Your task to perform on an android device: Open accessibility settings Image 0: 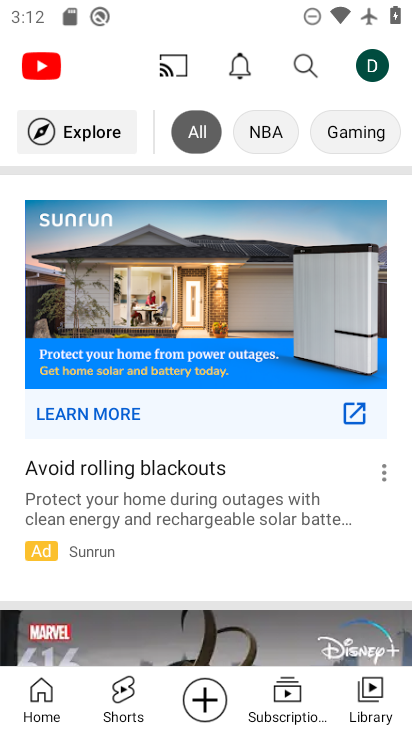
Step 0: press home button
Your task to perform on an android device: Open accessibility settings Image 1: 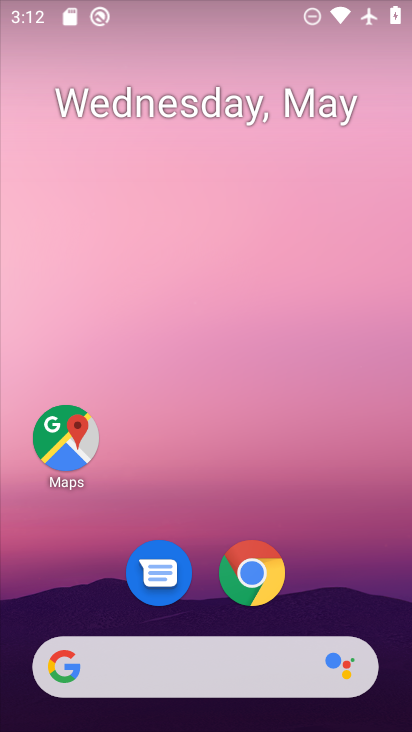
Step 1: drag from (321, 607) to (353, 54)
Your task to perform on an android device: Open accessibility settings Image 2: 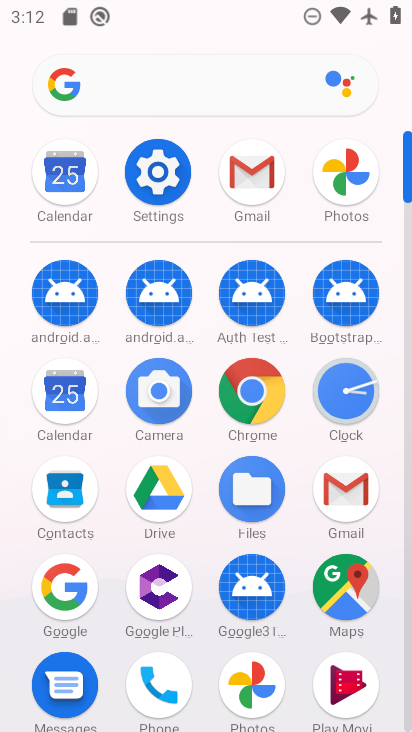
Step 2: click (162, 178)
Your task to perform on an android device: Open accessibility settings Image 3: 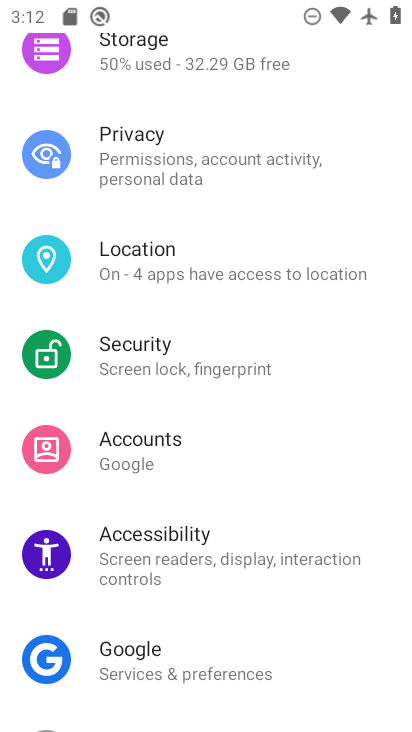
Step 3: click (190, 557)
Your task to perform on an android device: Open accessibility settings Image 4: 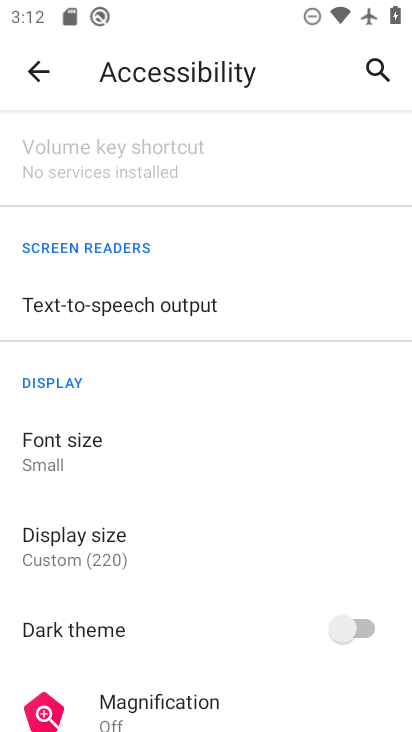
Step 4: task complete